Your task to perform on an android device: see tabs open on other devices in the chrome app Image 0: 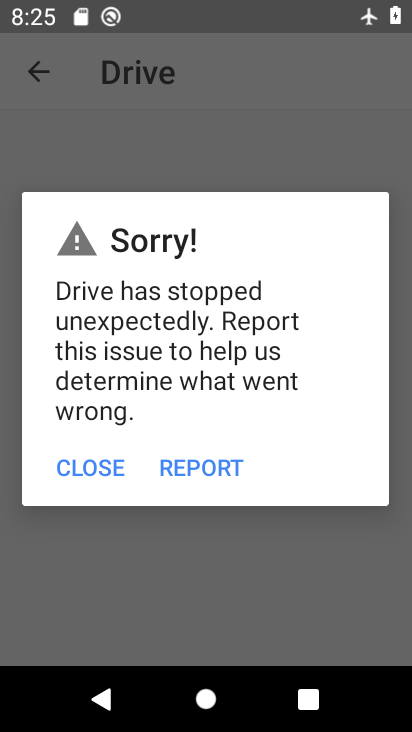
Step 0: press home button
Your task to perform on an android device: see tabs open on other devices in the chrome app Image 1: 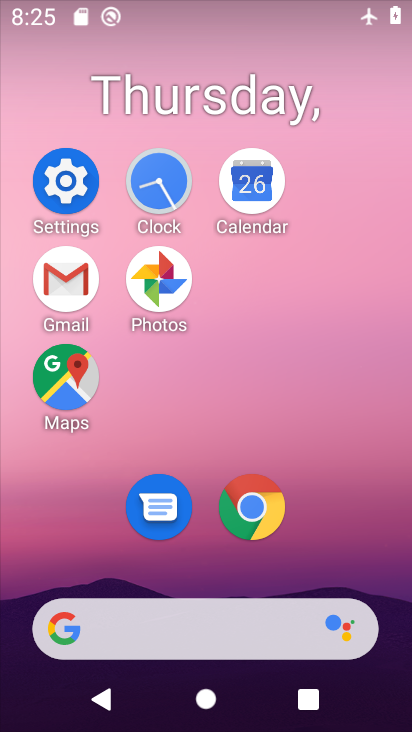
Step 1: click (236, 511)
Your task to perform on an android device: see tabs open on other devices in the chrome app Image 2: 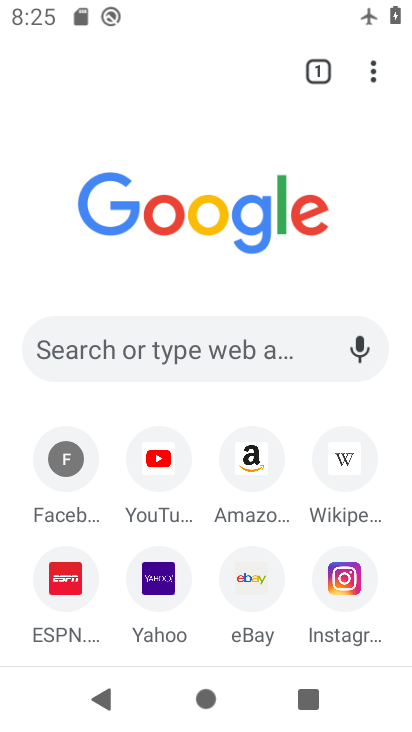
Step 2: click (383, 59)
Your task to perform on an android device: see tabs open on other devices in the chrome app Image 3: 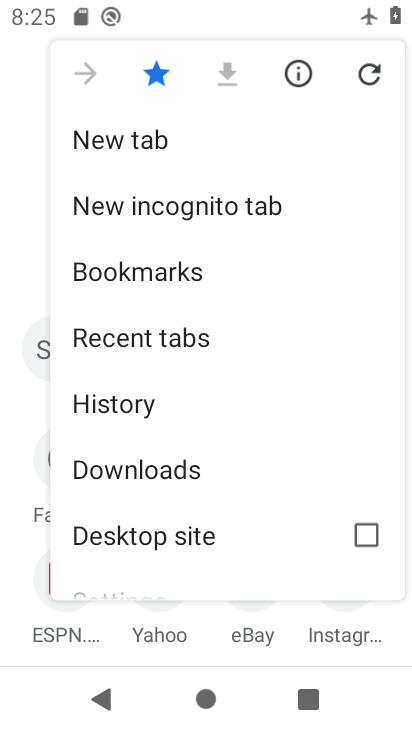
Step 3: click (118, 340)
Your task to perform on an android device: see tabs open on other devices in the chrome app Image 4: 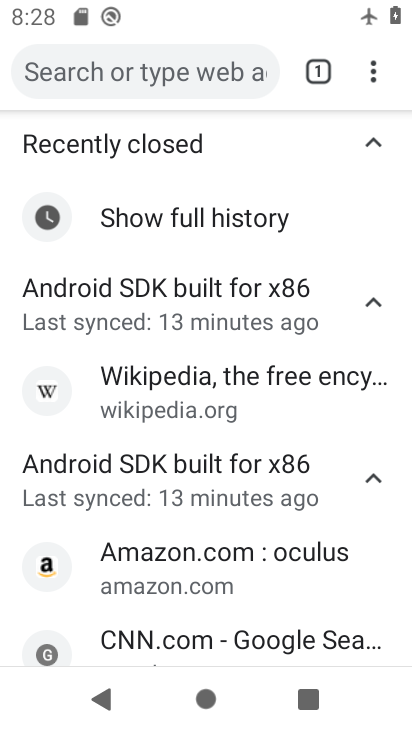
Step 4: task complete